Your task to perform on an android device: read, delete, or share a saved page in the chrome app Image 0: 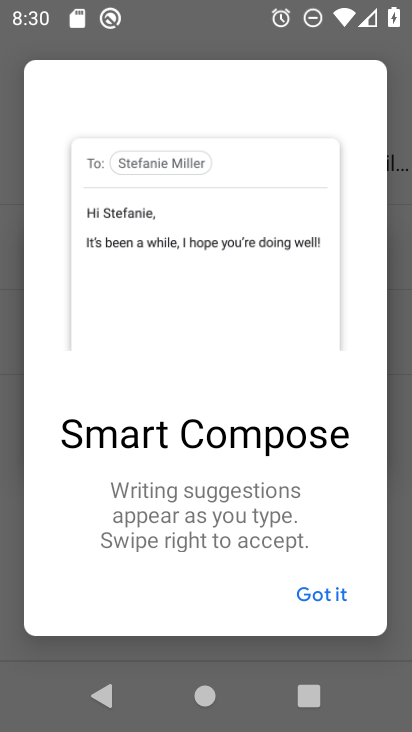
Step 0: press home button
Your task to perform on an android device: read, delete, or share a saved page in the chrome app Image 1: 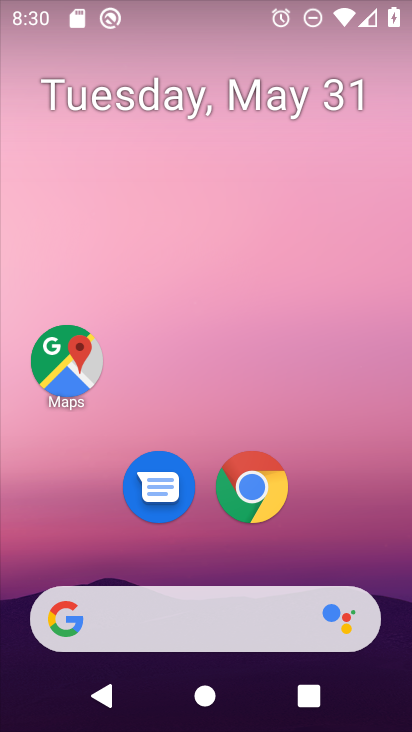
Step 1: click (277, 499)
Your task to perform on an android device: read, delete, or share a saved page in the chrome app Image 2: 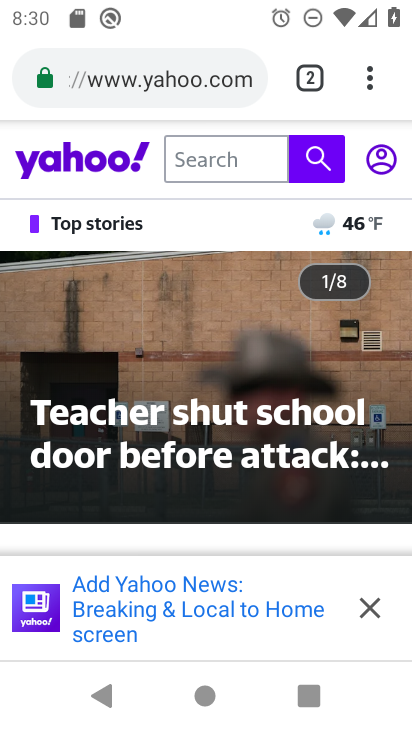
Step 2: click (376, 88)
Your task to perform on an android device: read, delete, or share a saved page in the chrome app Image 3: 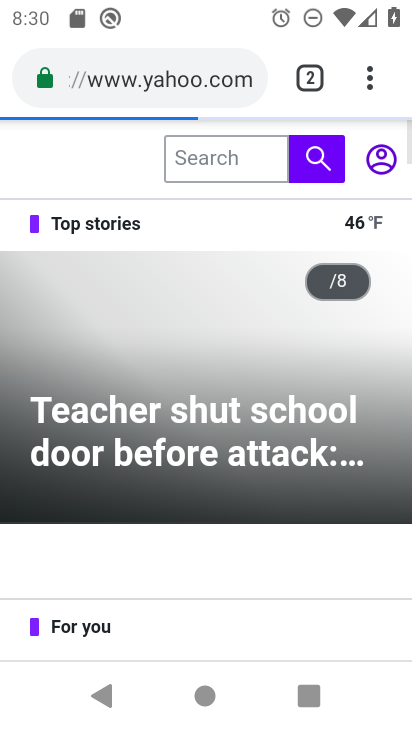
Step 3: click (372, 86)
Your task to perform on an android device: read, delete, or share a saved page in the chrome app Image 4: 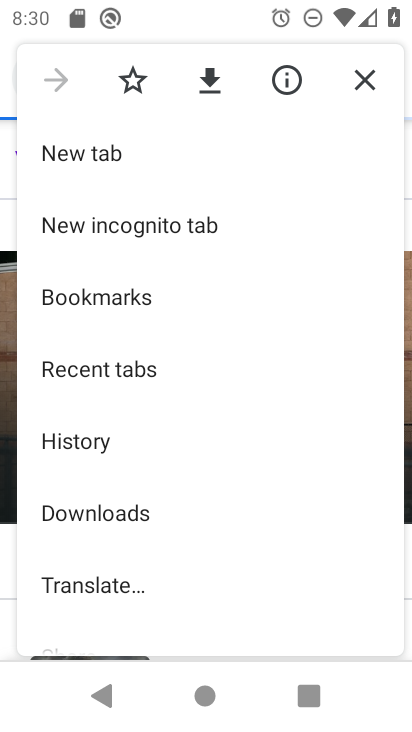
Step 4: click (104, 290)
Your task to perform on an android device: read, delete, or share a saved page in the chrome app Image 5: 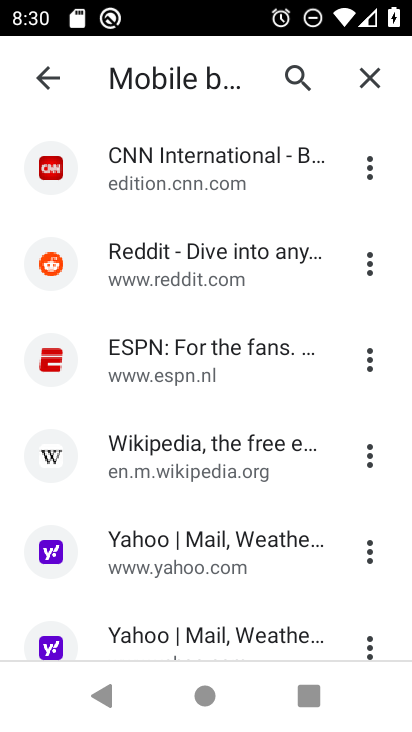
Step 5: click (368, 355)
Your task to perform on an android device: read, delete, or share a saved page in the chrome app Image 6: 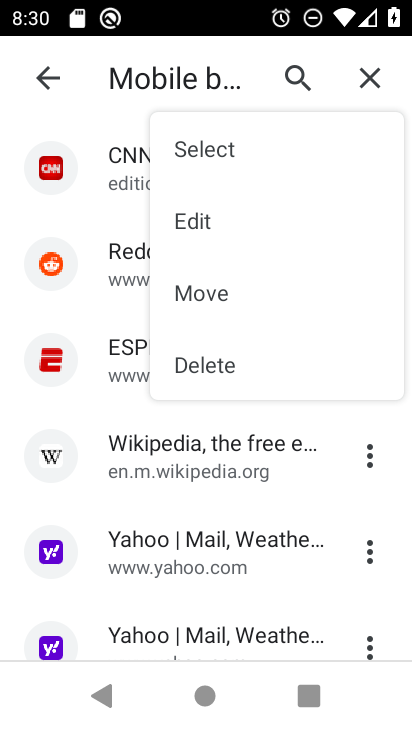
Step 6: click (230, 357)
Your task to perform on an android device: read, delete, or share a saved page in the chrome app Image 7: 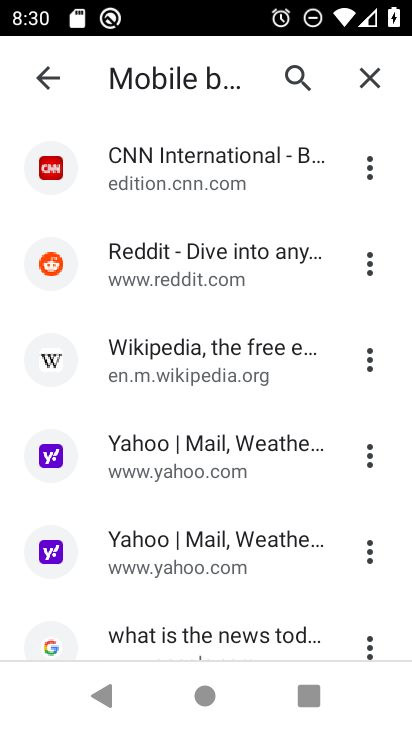
Step 7: task complete